Your task to perform on an android device: all mails in gmail Image 0: 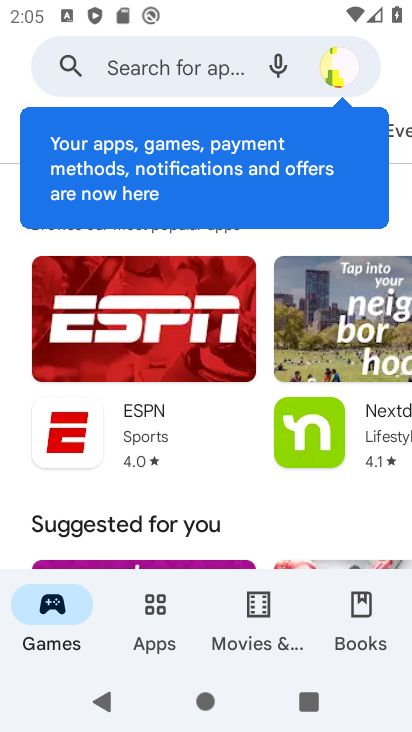
Step 0: press home button
Your task to perform on an android device: all mails in gmail Image 1: 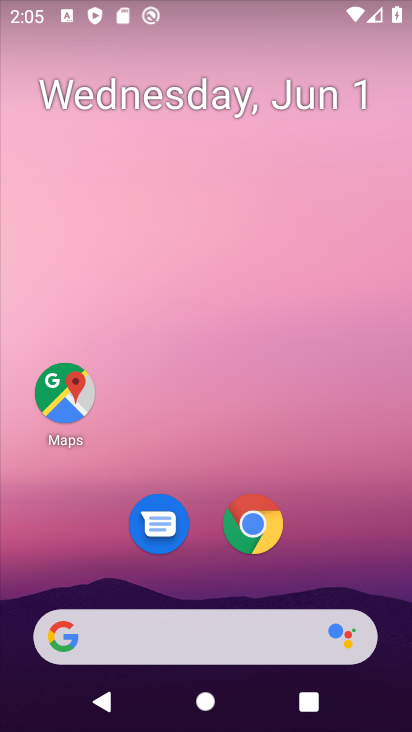
Step 1: drag from (332, 543) to (269, 68)
Your task to perform on an android device: all mails in gmail Image 2: 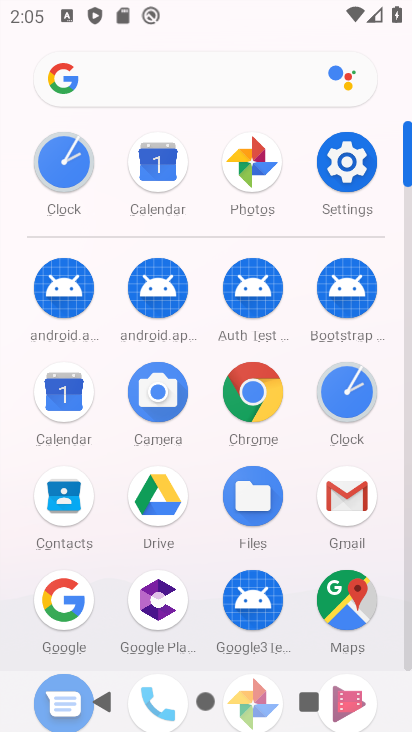
Step 2: click (357, 502)
Your task to perform on an android device: all mails in gmail Image 3: 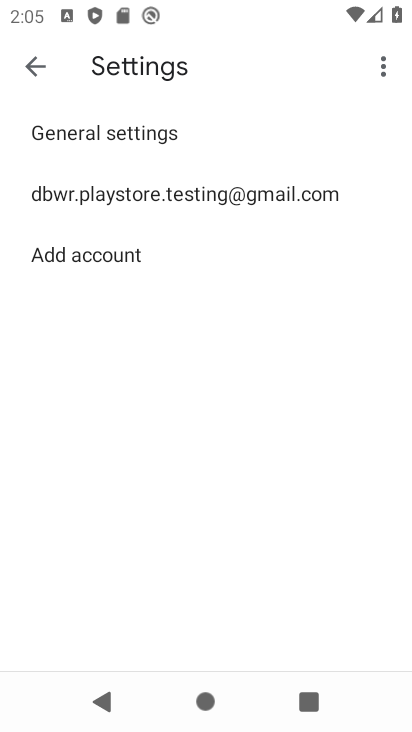
Step 3: click (20, 58)
Your task to perform on an android device: all mails in gmail Image 4: 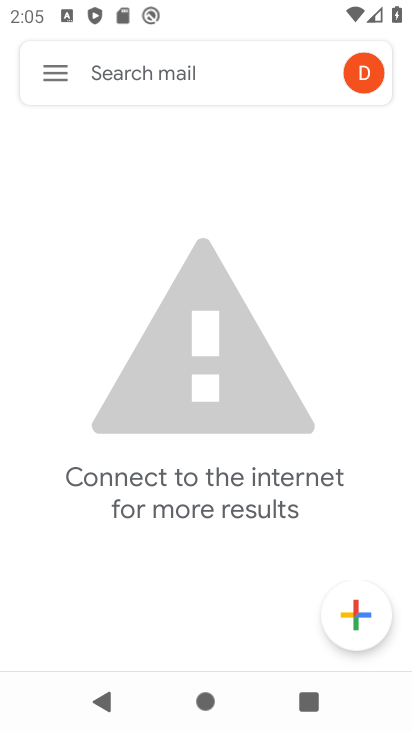
Step 4: click (54, 60)
Your task to perform on an android device: all mails in gmail Image 5: 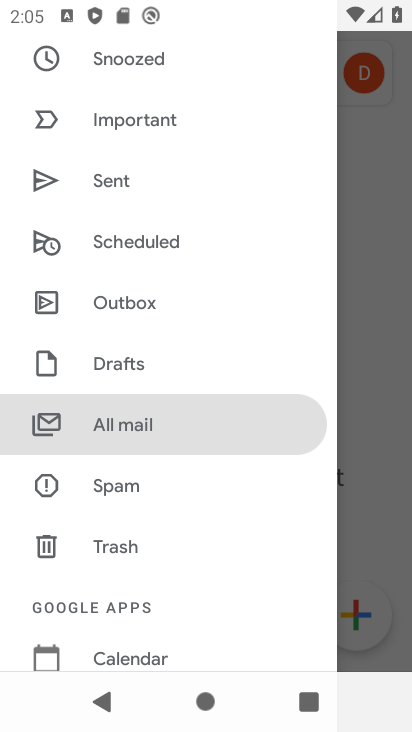
Step 5: click (148, 436)
Your task to perform on an android device: all mails in gmail Image 6: 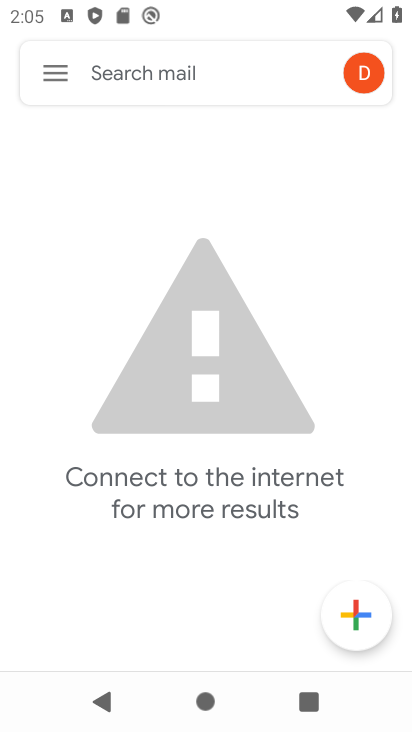
Step 6: click (56, 58)
Your task to perform on an android device: all mails in gmail Image 7: 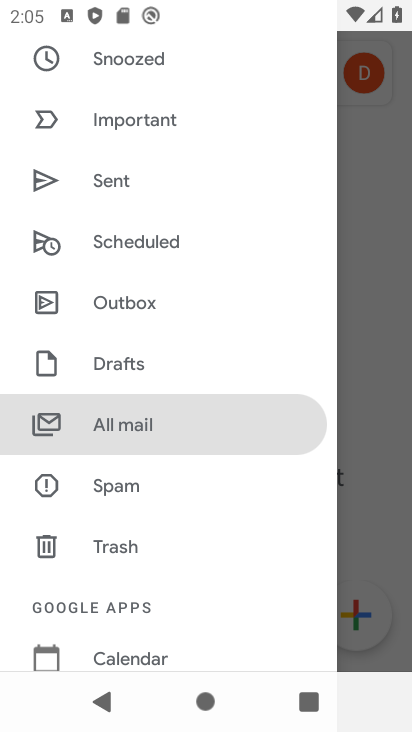
Step 7: click (139, 360)
Your task to perform on an android device: all mails in gmail Image 8: 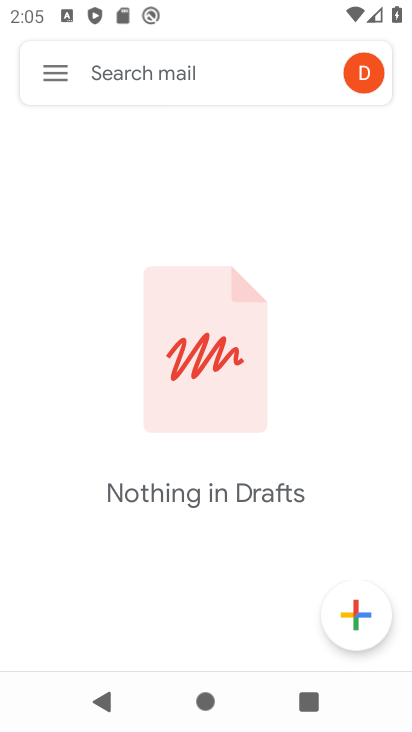
Step 8: click (50, 72)
Your task to perform on an android device: all mails in gmail Image 9: 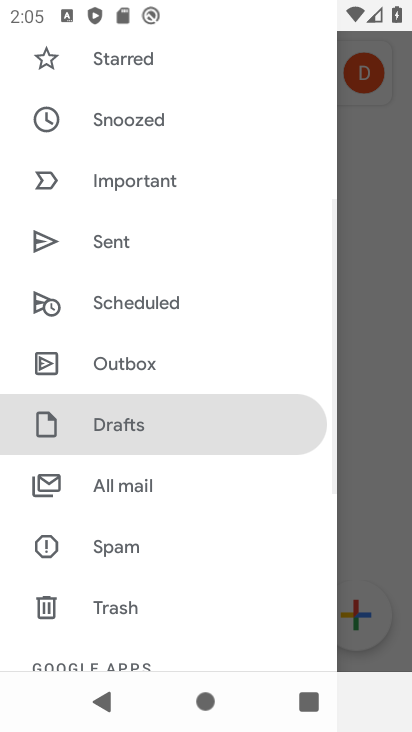
Step 9: click (154, 494)
Your task to perform on an android device: all mails in gmail Image 10: 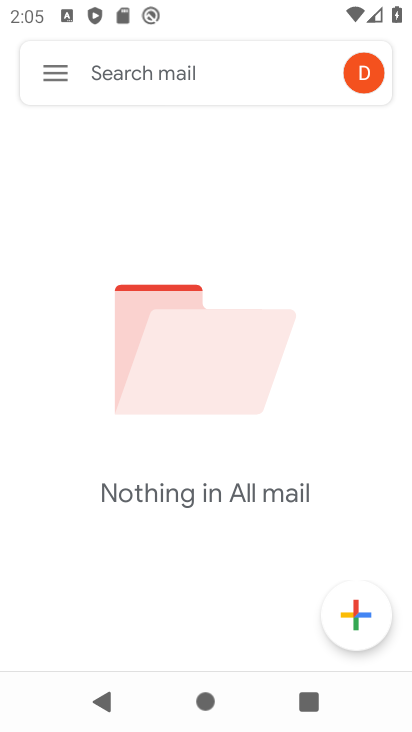
Step 10: task complete